Your task to perform on an android device: check google app version Image 0: 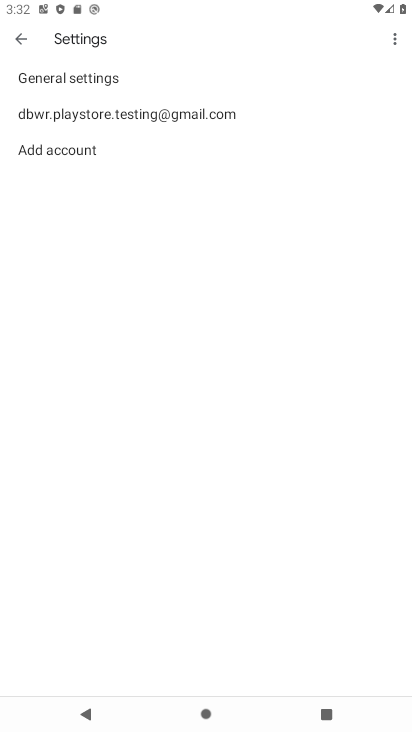
Step 0: press home button
Your task to perform on an android device: check google app version Image 1: 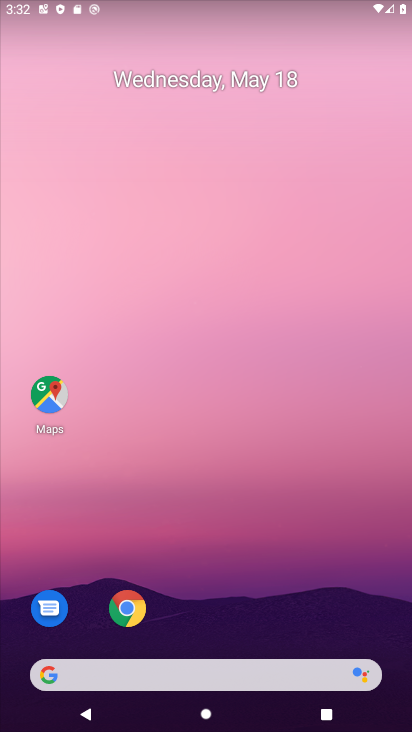
Step 1: drag from (168, 621) to (146, 320)
Your task to perform on an android device: check google app version Image 2: 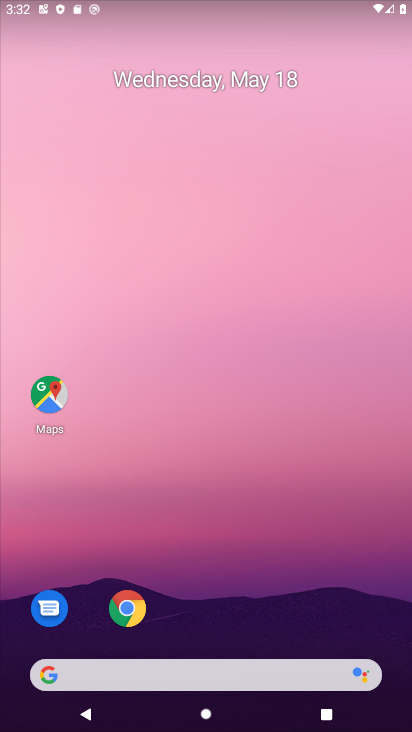
Step 2: click (132, 678)
Your task to perform on an android device: check google app version Image 3: 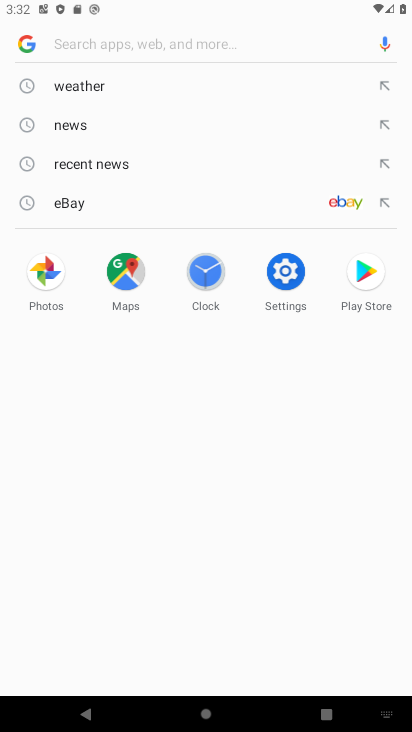
Step 3: click (31, 36)
Your task to perform on an android device: check google app version Image 4: 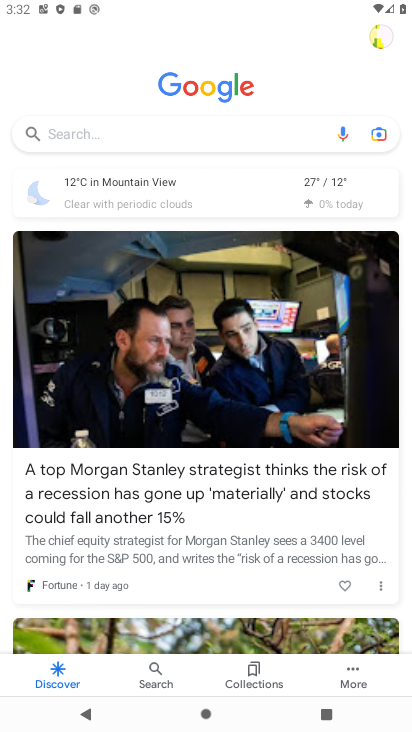
Step 4: click (355, 676)
Your task to perform on an android device: check google app version Image 5: 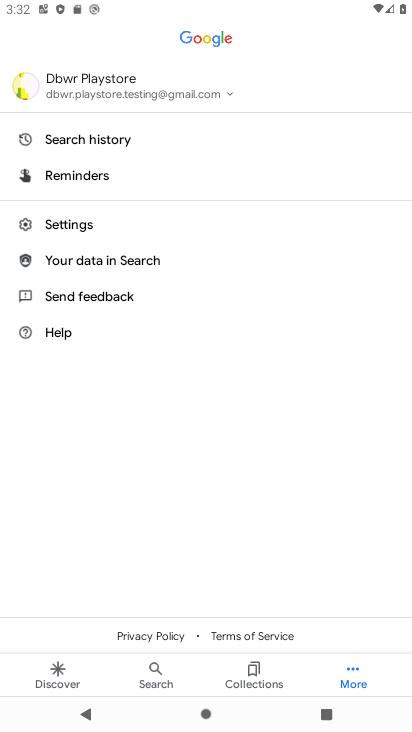
Step 5: click (70, 221)
Your task to perform on an android device: check google app version Image 6: 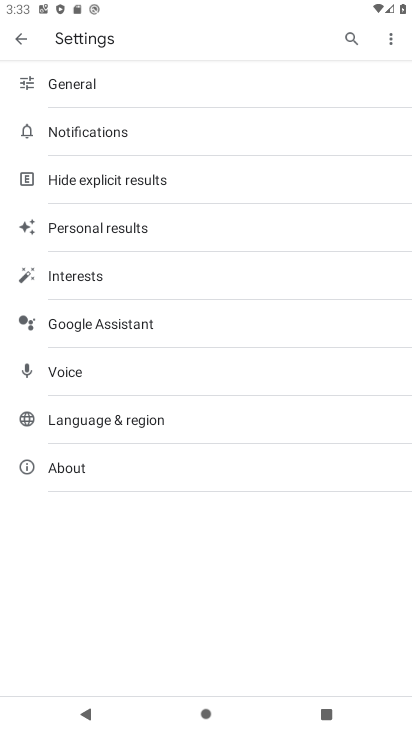
Step 6: click (86, 469)
Your task to perform on an android device: check google app version Image 7: 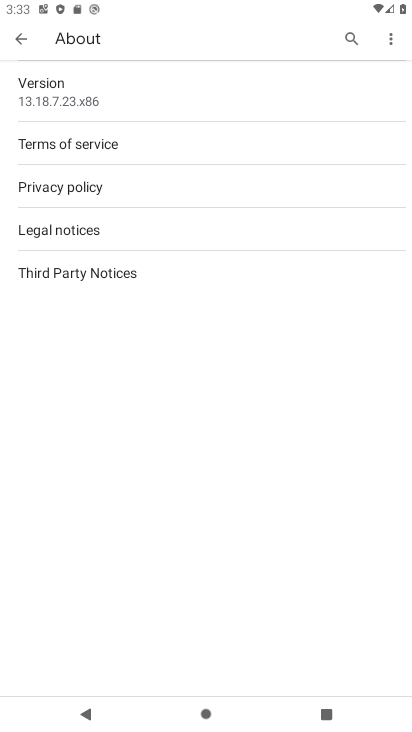
Step 7: task complete